Your task to perform on an android device: check out phone information Image 0: 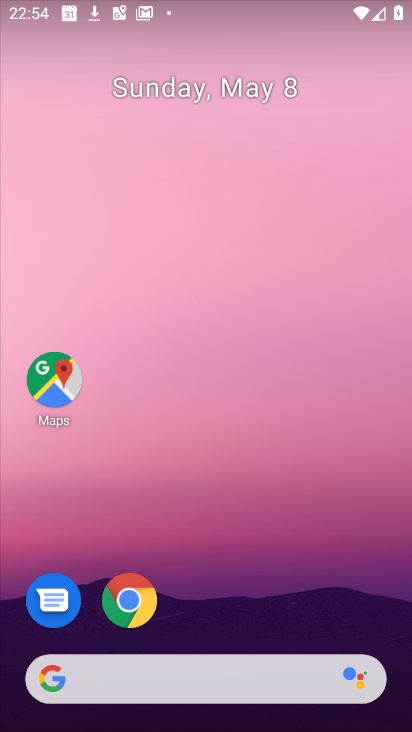
Step 0: drag from (260, 711) to (310, 318)
Your task to perform on an android device: check out phone information Image 1: 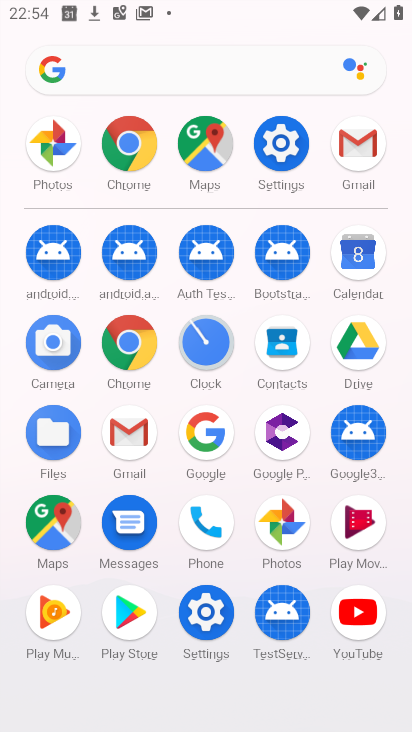
Step 1: click (221, 601)
Your task to perform on an android device: check out phone information Image 2: 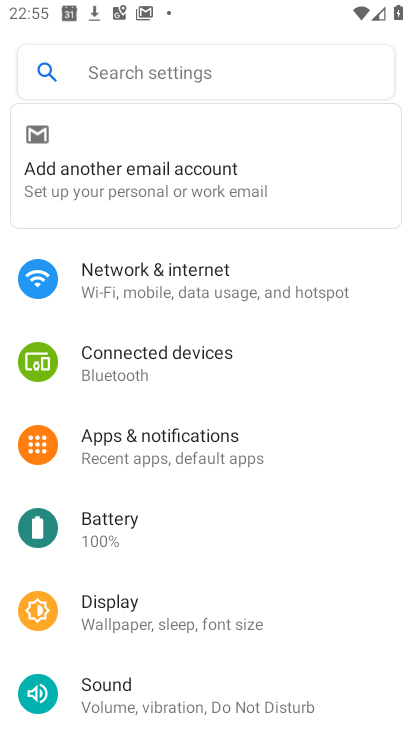
Step 2: click (207, 76)
Your task to perform on an android device: check out phone information Image 3: 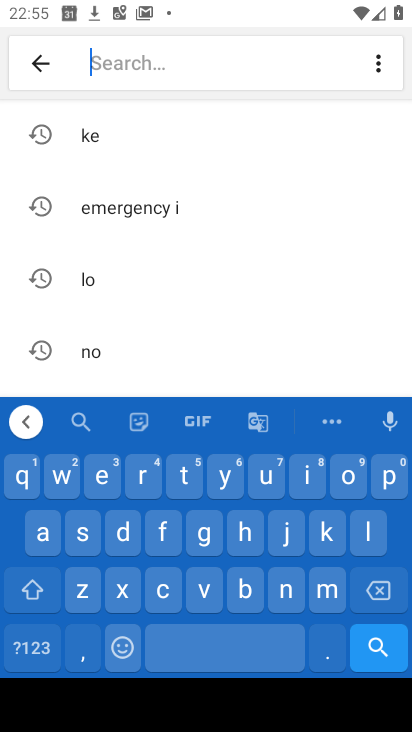
Step 3: click (32, 533)
Your task to perform on an android device: check out phone information Image 4: 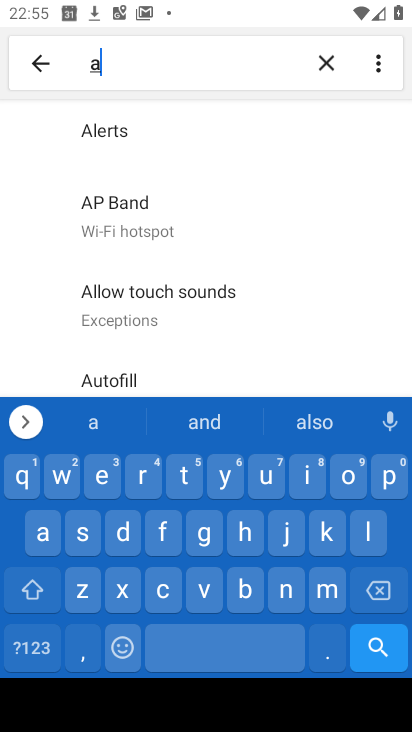
Step 4: click (243, 591)
Your task to perform on an android device: check out phone information Image 5: 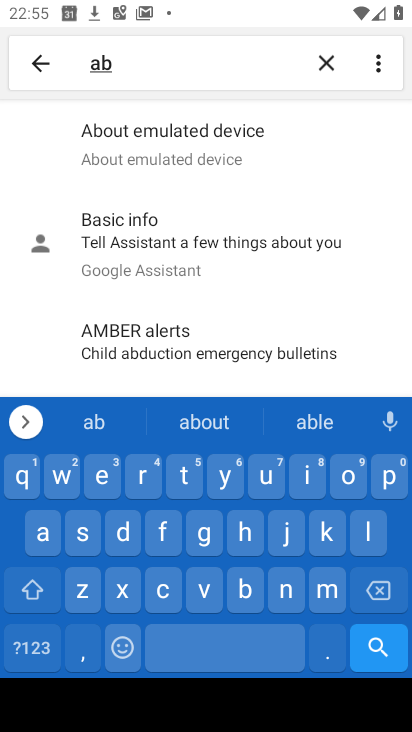
Step 5: click (167, 141)
Your task to perform on an android device: check out phone information Image 6: 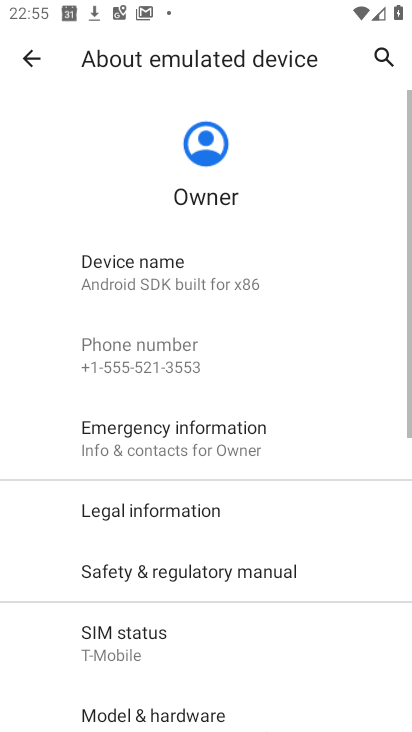
Step 6: task complete